Your task to perform on an android device: Go to Google maps Image 0: 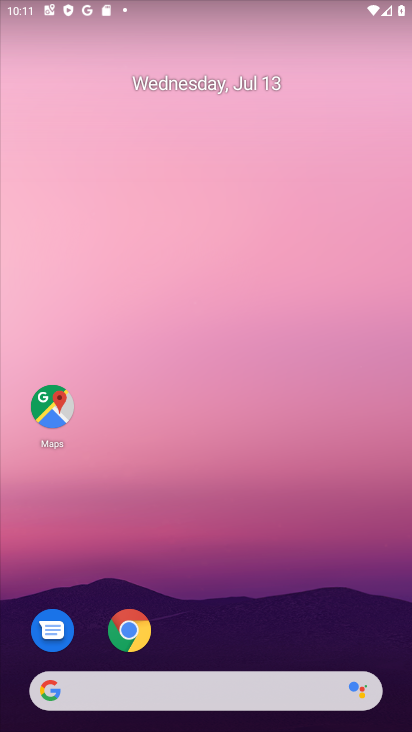
Step 0: drag from (348, 647) to (284, 145)
Your task to perform on an android device: Go to Google maps Image 1: 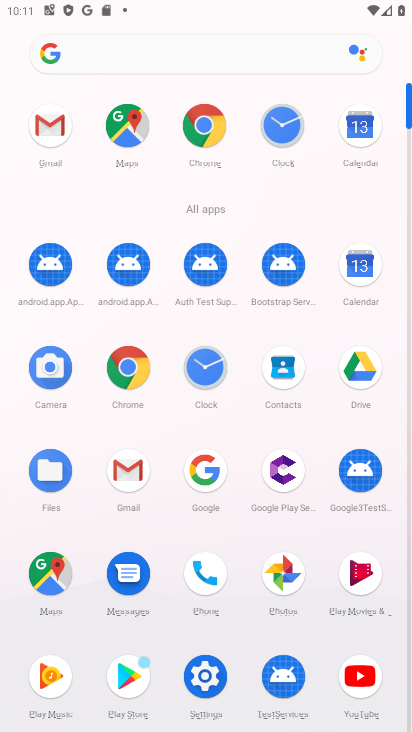
Step 1: click (44, 584)
Your task to perform on an android device: Go to Google maps Image 2: 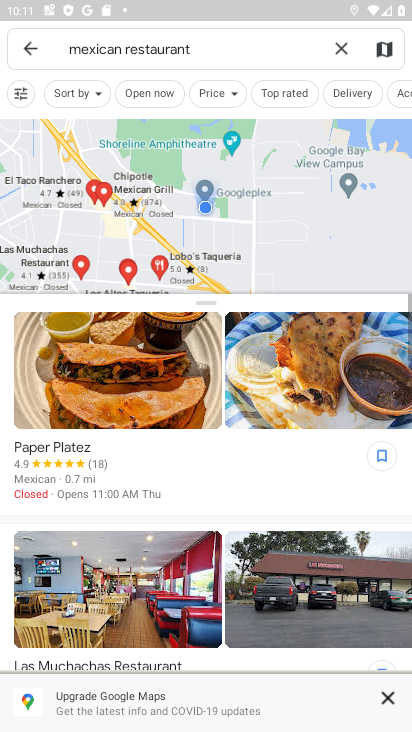
Step 2: task complete